Your task to perform on an android device: Open Yahoo.com Image 0: 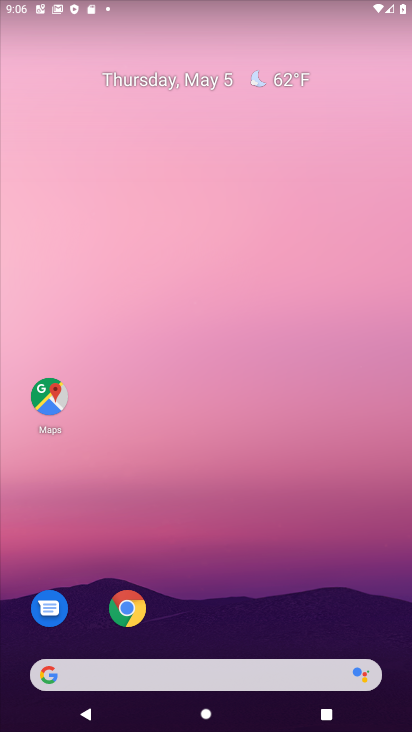
Step 0: drag from (347, 559) to (213, 8)
Your task to perform on an android device: Open Yahoo.com Image 1: 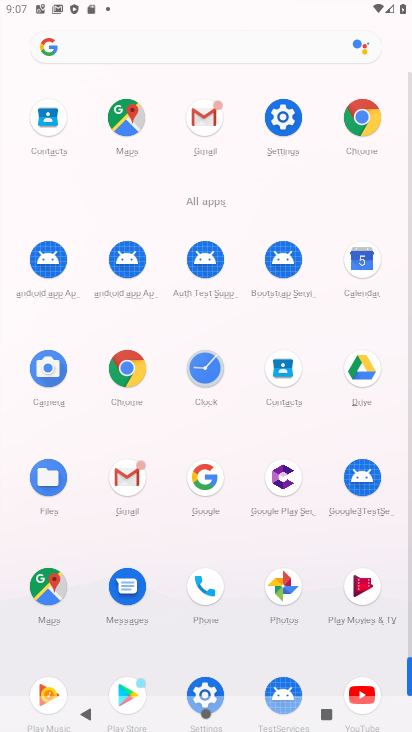
Step 1: click (361, 115)
Your task to perform on an android device: Open Yahoo.com Image 2: 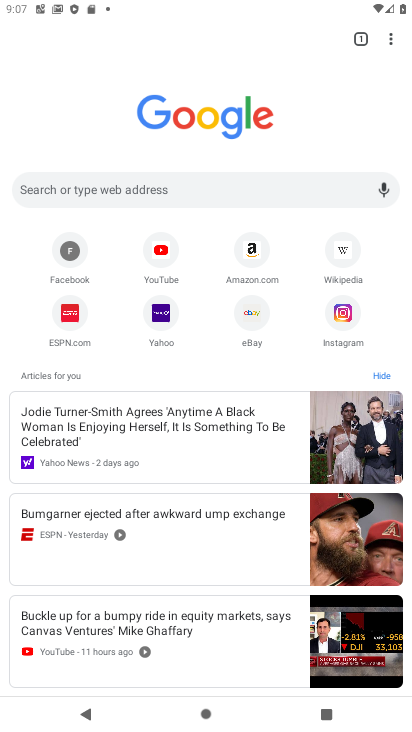
Step 2: click (155, 312)
Your task to perform on an android device: Open Yahoo.com Image 3: 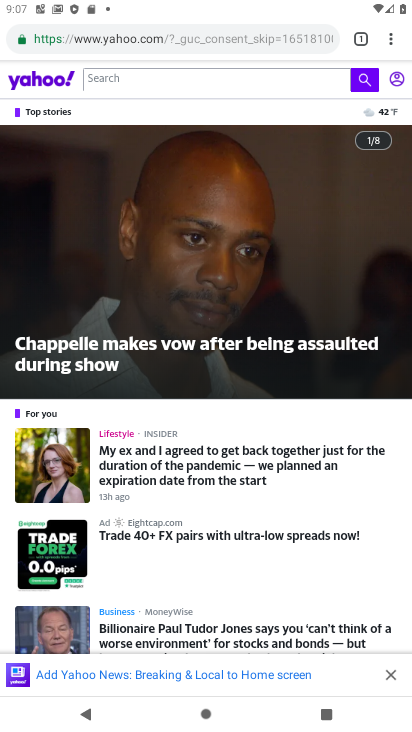
Step 3: task complete